Your task to perform on an android device: toggle wifi Image 0: 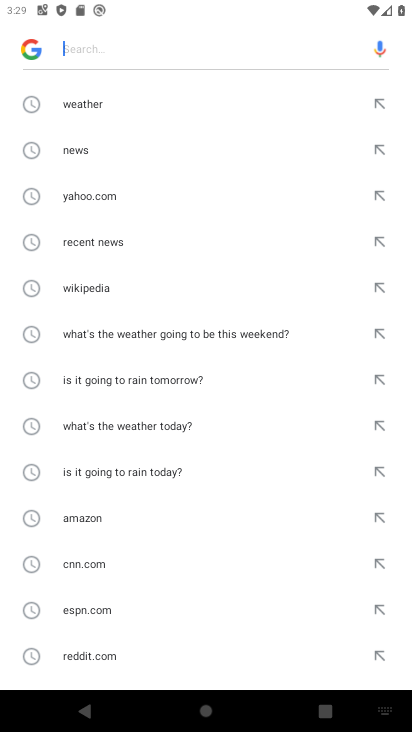
Step 0: press home button
Your task to perform on an android device: toggle wifi Image 1: 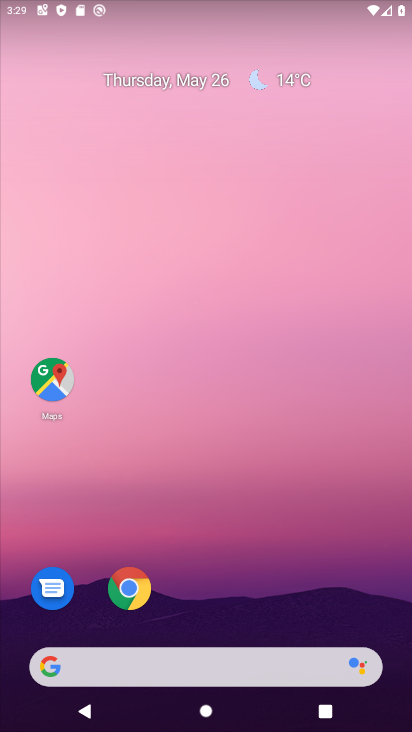
Step 1: drag from (260, 575) to (318, 328)
Your task to perform on an android device: toggle wifi Image 2: 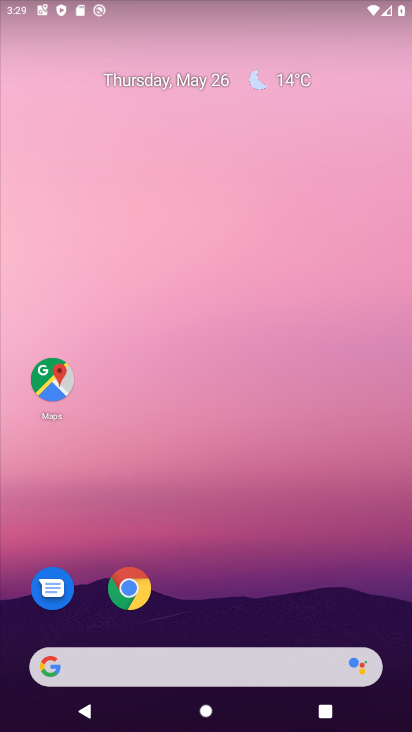
Step 2: drag from (221, 584) to (343, 166)
Your task to perform on an android device: toggle wifi Image 3: 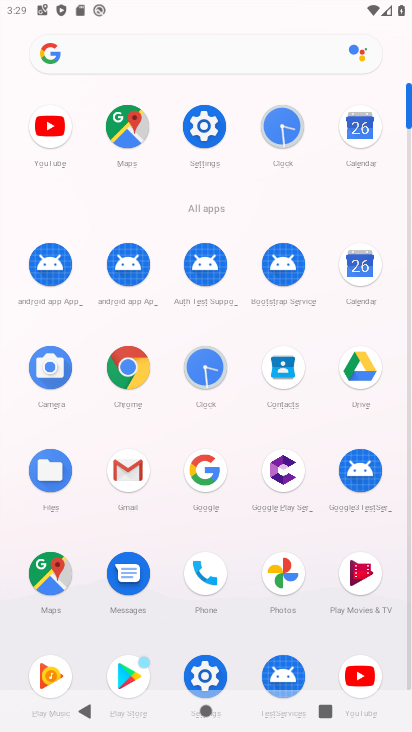
Step 3: click (227, 113)
Your task to perform on an android device: toggle wifi Image 4: 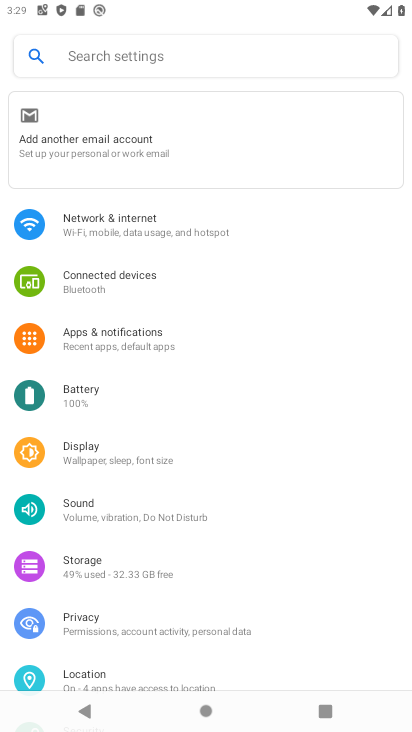
Step 4: click (165, 206)
Your task to perform on an android device: toggle wifi Image 5: 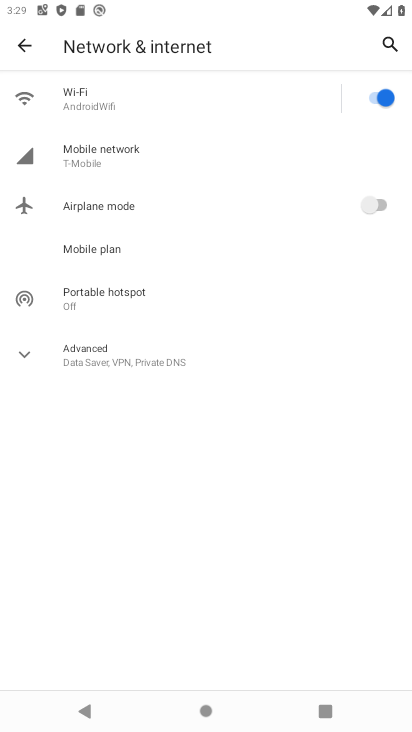
Step 5: click (126, 114)
Your task to perform on an android device: toggle wifi Image 6: 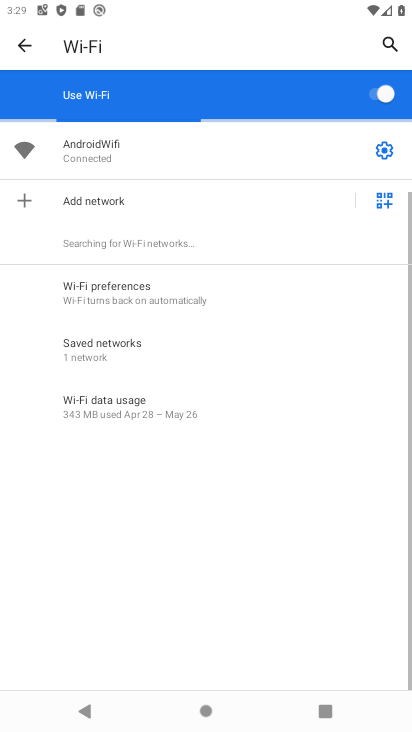
Step 6: task complete